Your task to perform on an android device: Show me popular videos on Youtube Image 0: 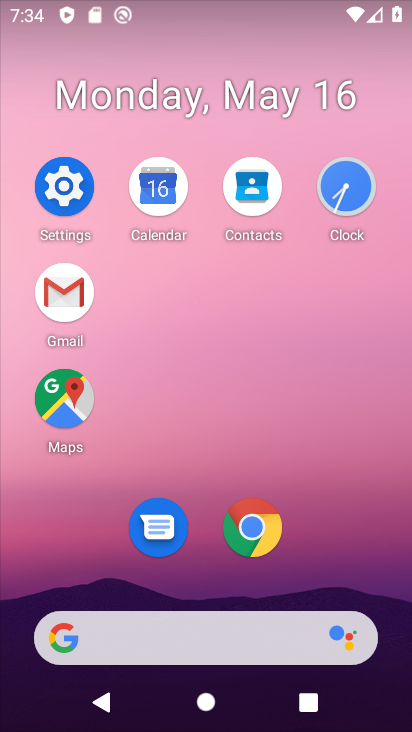
Step 0: drag from (284, 578) to (305, 119)
Your task to perform on an android device: Show me popular videos on Youtube Image 1: 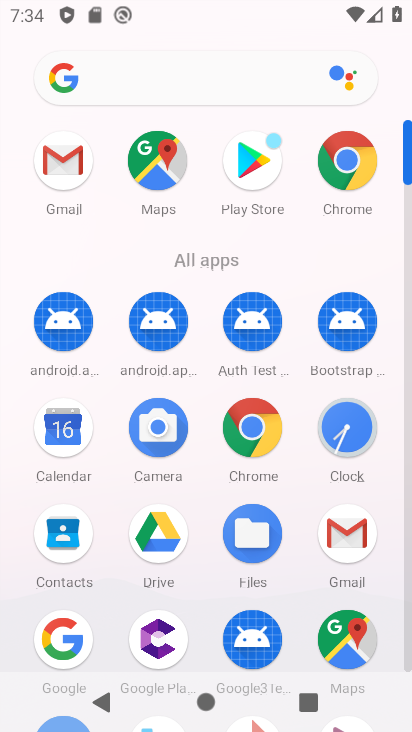
Step 1: drag from (207, 543) to (218, 104)
Your task to perform on an android device: Show me popular videos on Youtube Image 2: 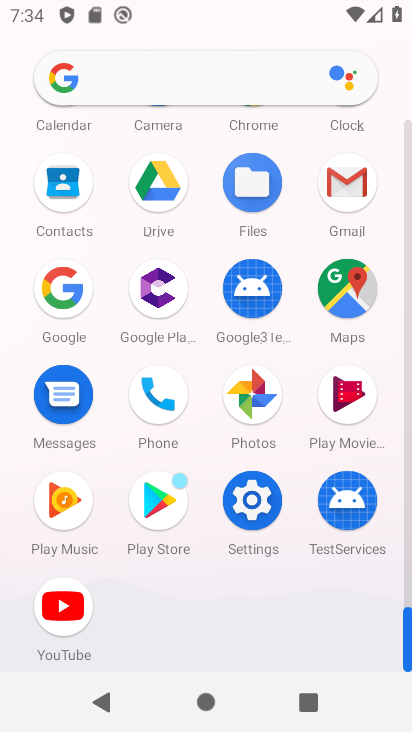
Step 2: click (49, 599)
Your task to perform on an android device: Show me popular videos on Youtube Image 3: 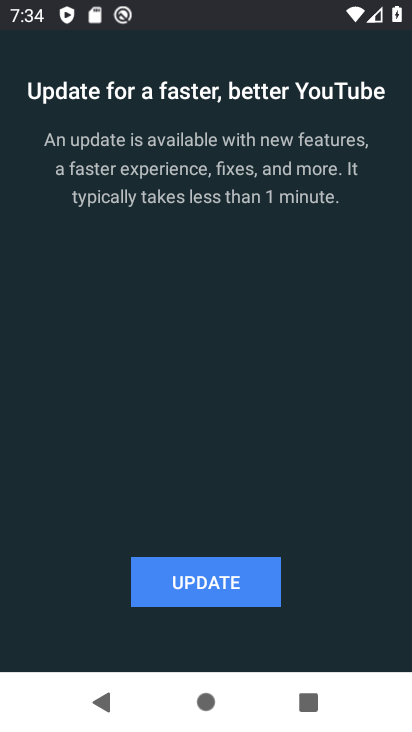
Step 3: click (190, 590)
Your task to perform on an android device: Show me popular videos on Youtube Image 4: 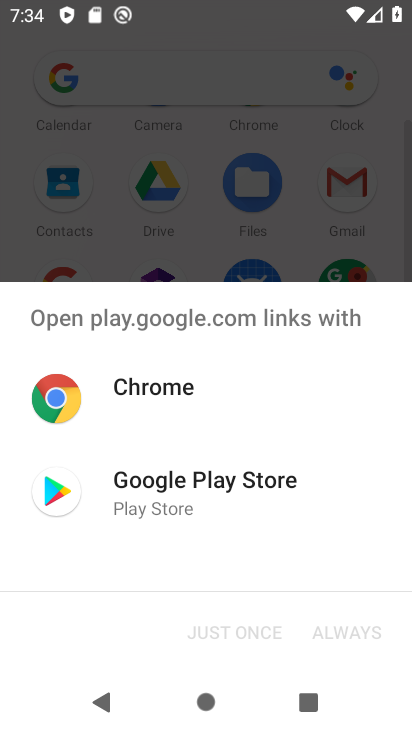
Step 4: click (213, 490)
Your task to perform on an android device: Show me popular videos on Youtube Image 5: 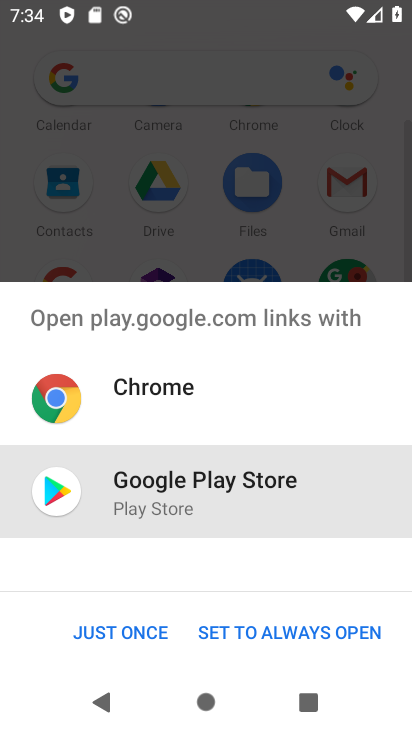
Step 5: click (298, 495)
Your task to perform on an android device: Show me popular videos on Youtube Image 6: 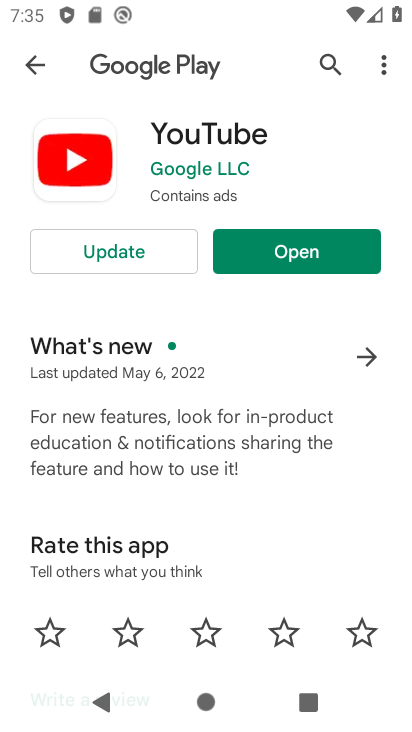
Step 6: click (91, 267)
Your task to perform on an android device: Show me popular videos on Youtube Image 7: 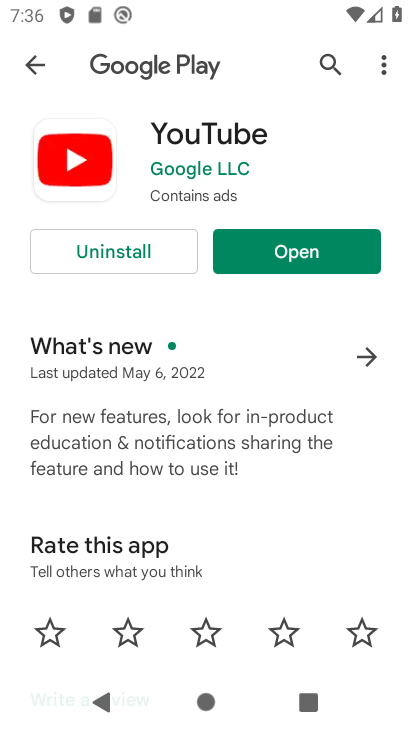
Step 7: click (333, 259)
Your task to perform on an android device: Show me popular videos on Youtube Image 8: 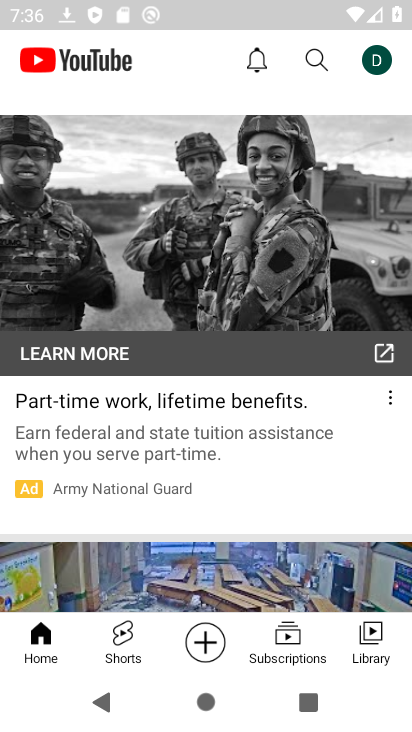
Step 8: task complete